Your task to perform on an android device: Go to eBay Image 0: 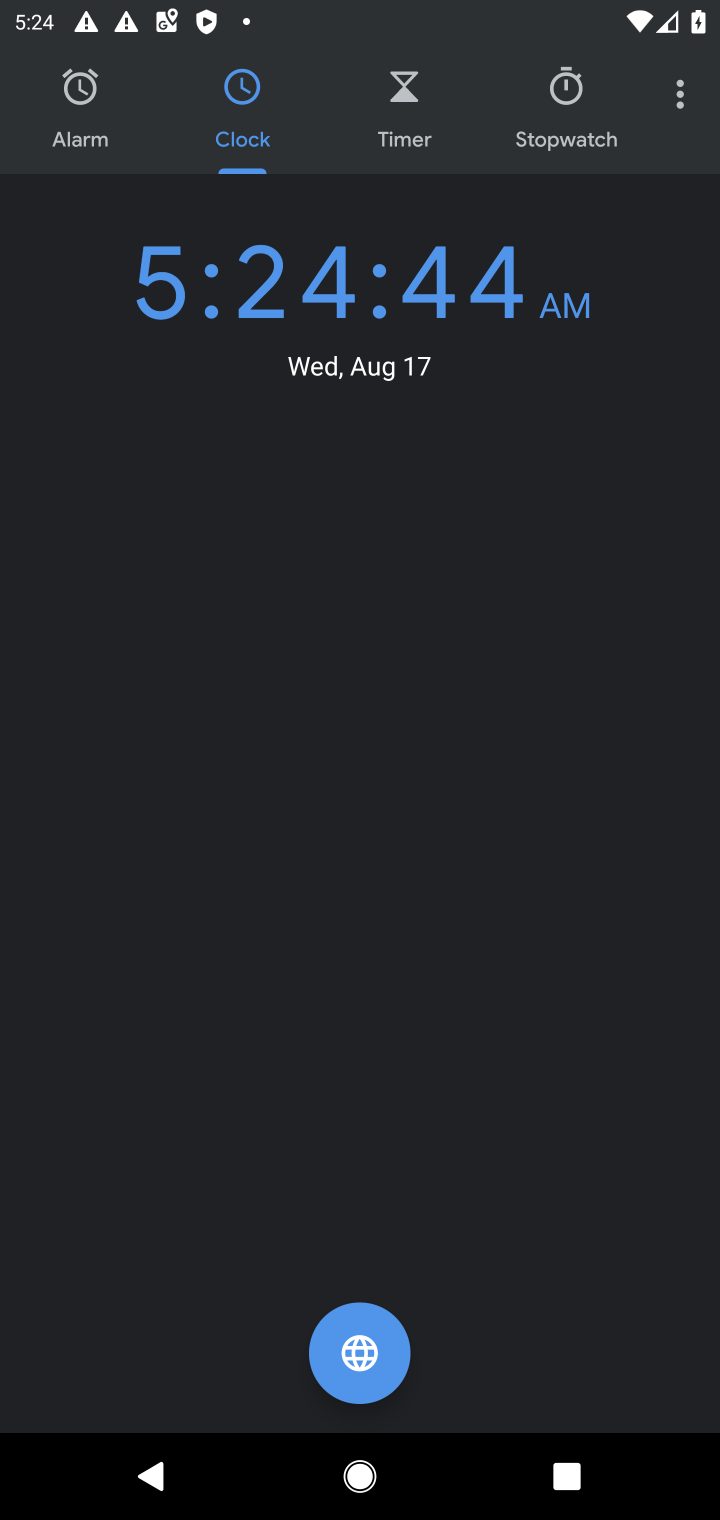
Step 0: press home button
Your task to perform on an android device: Go to eBay Image 1: 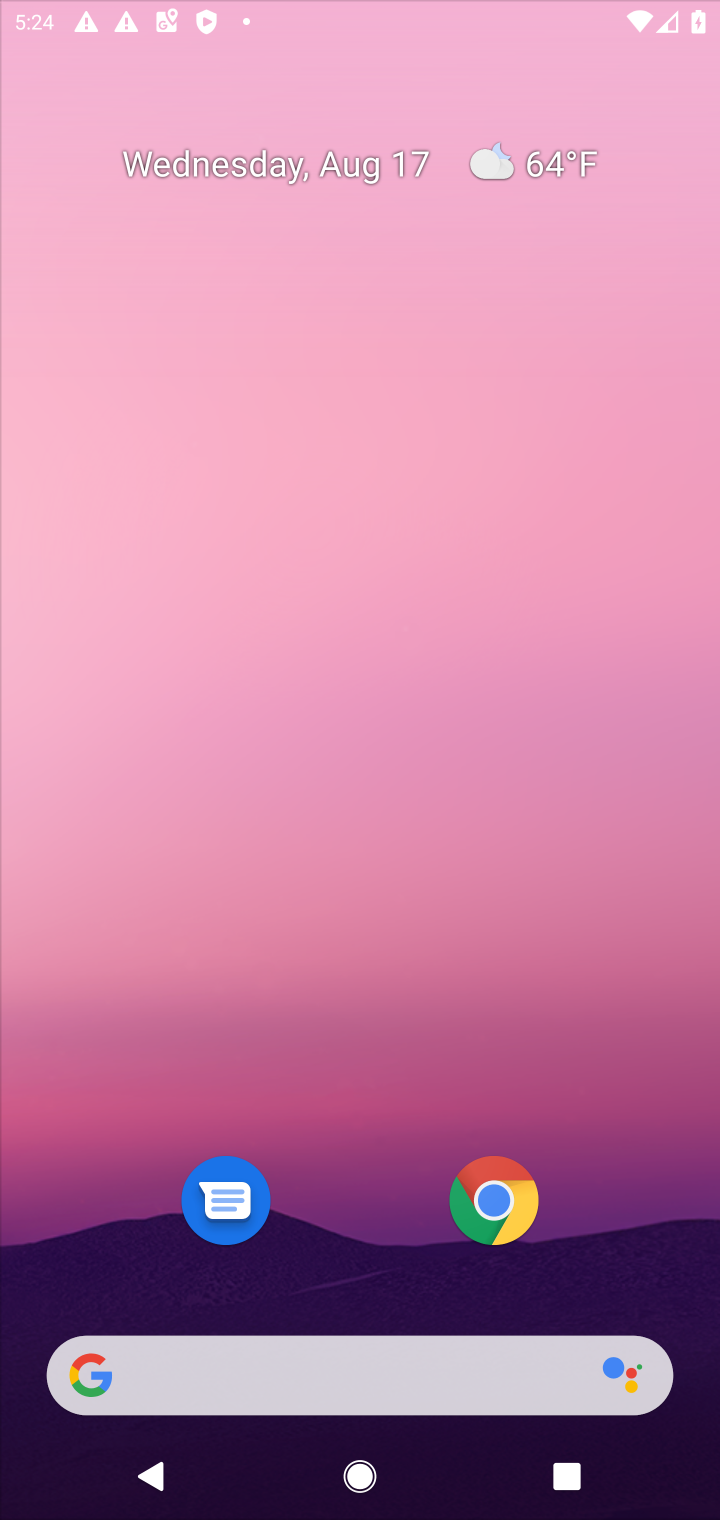
Step 1: press home button
Your task to perform on an android device: Go to eBay Image 2: 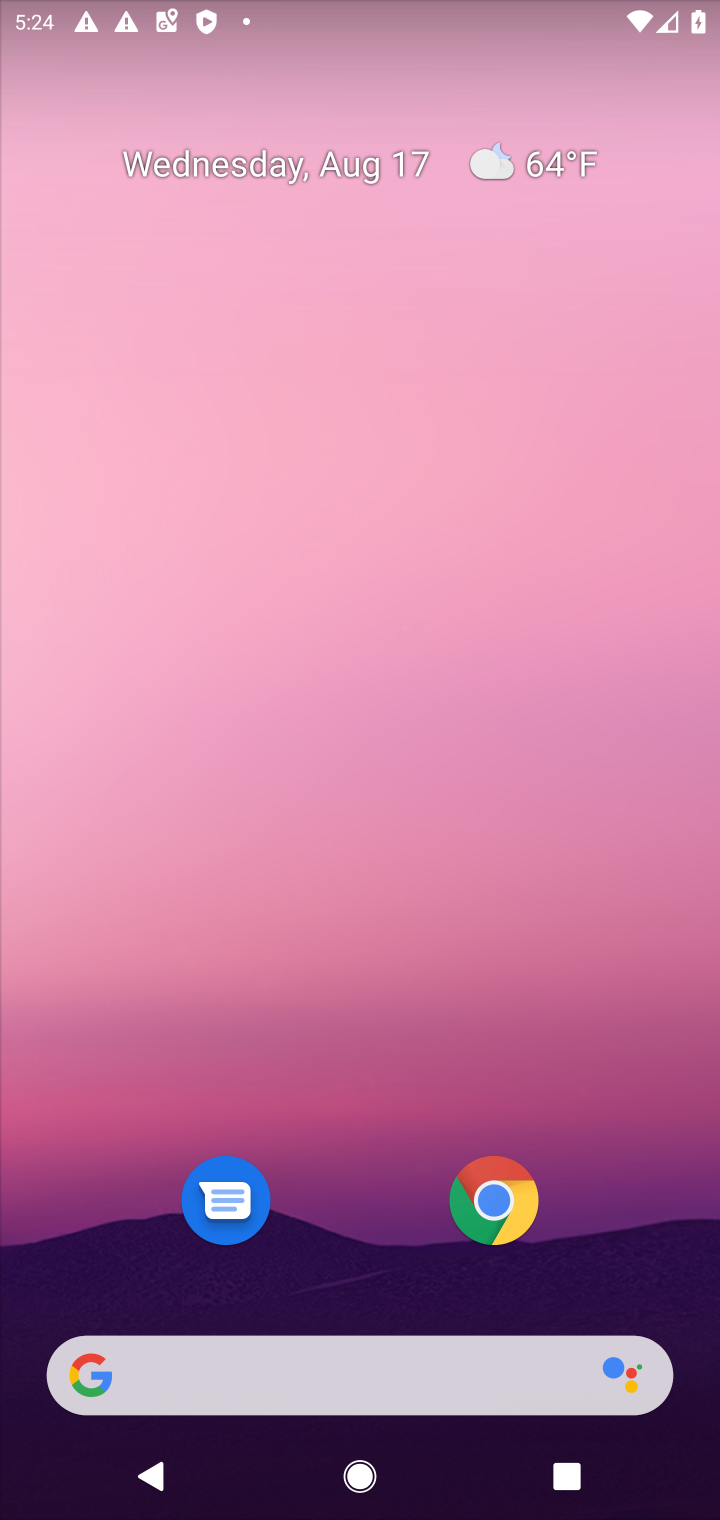
Step 2: click (508, 1215)
Your task to perform on an android device: Go to eBay Image 3: 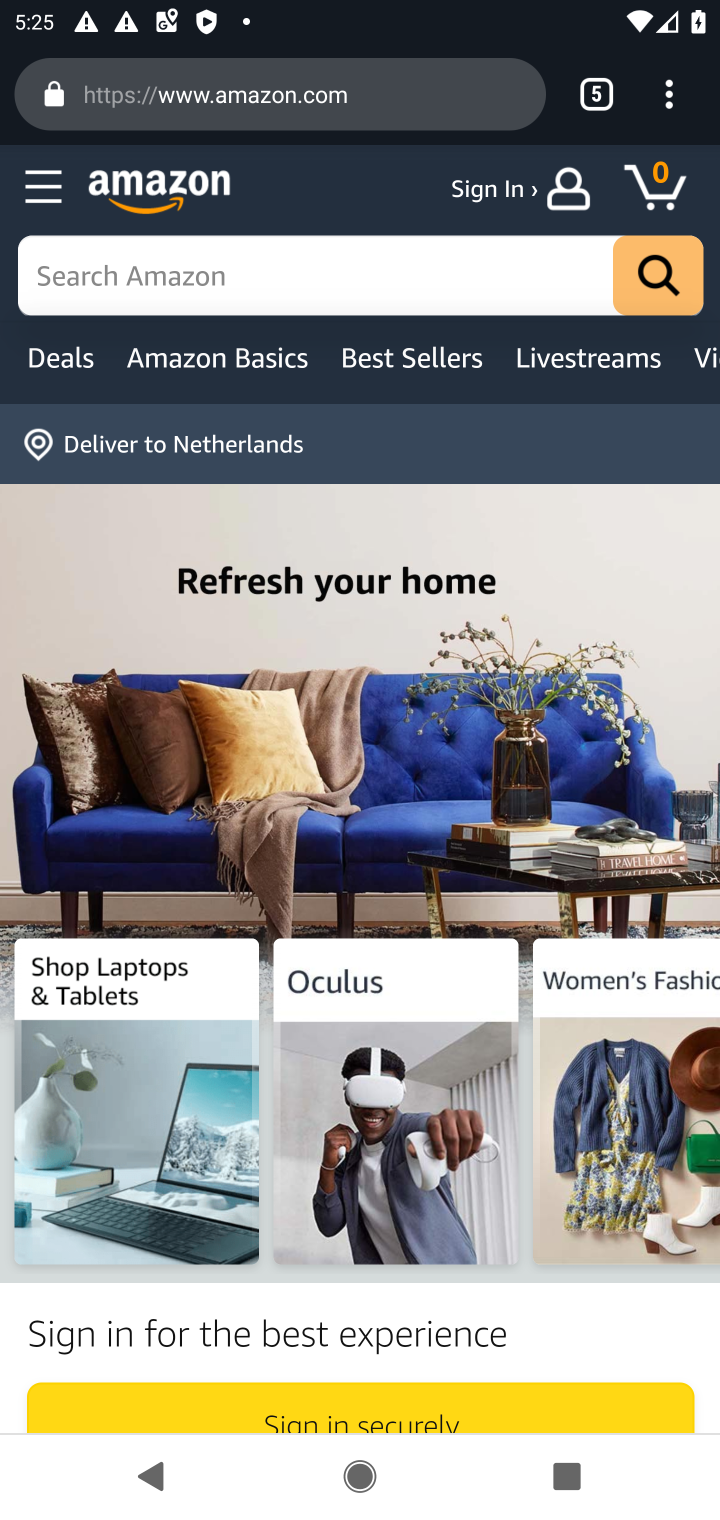
Step 3: click (669, 111)
Your task to perform on an android device: Go to eBay Image 4: 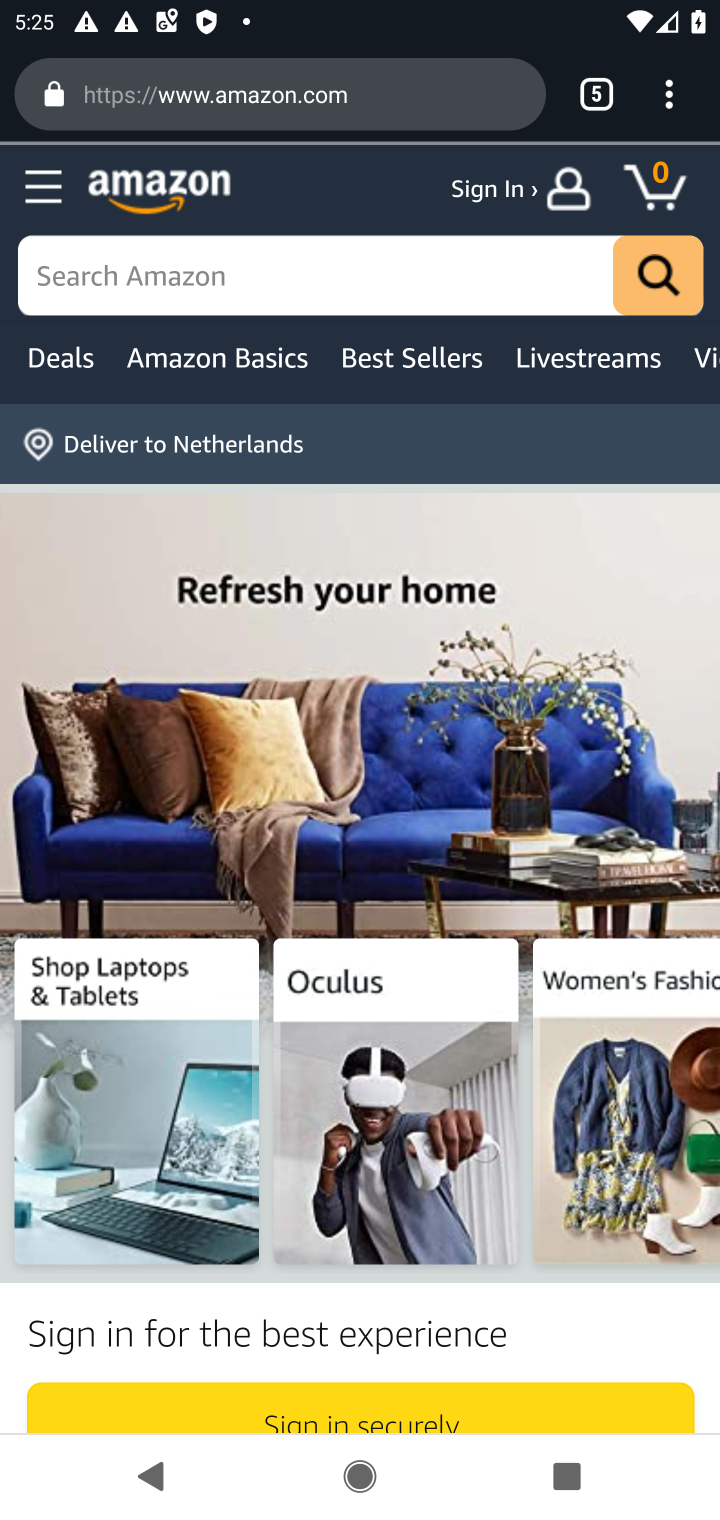
Step 4: drag from (670, 115) to (333, 191)
Your task to perform on an android device: Go to eBay Image 5: 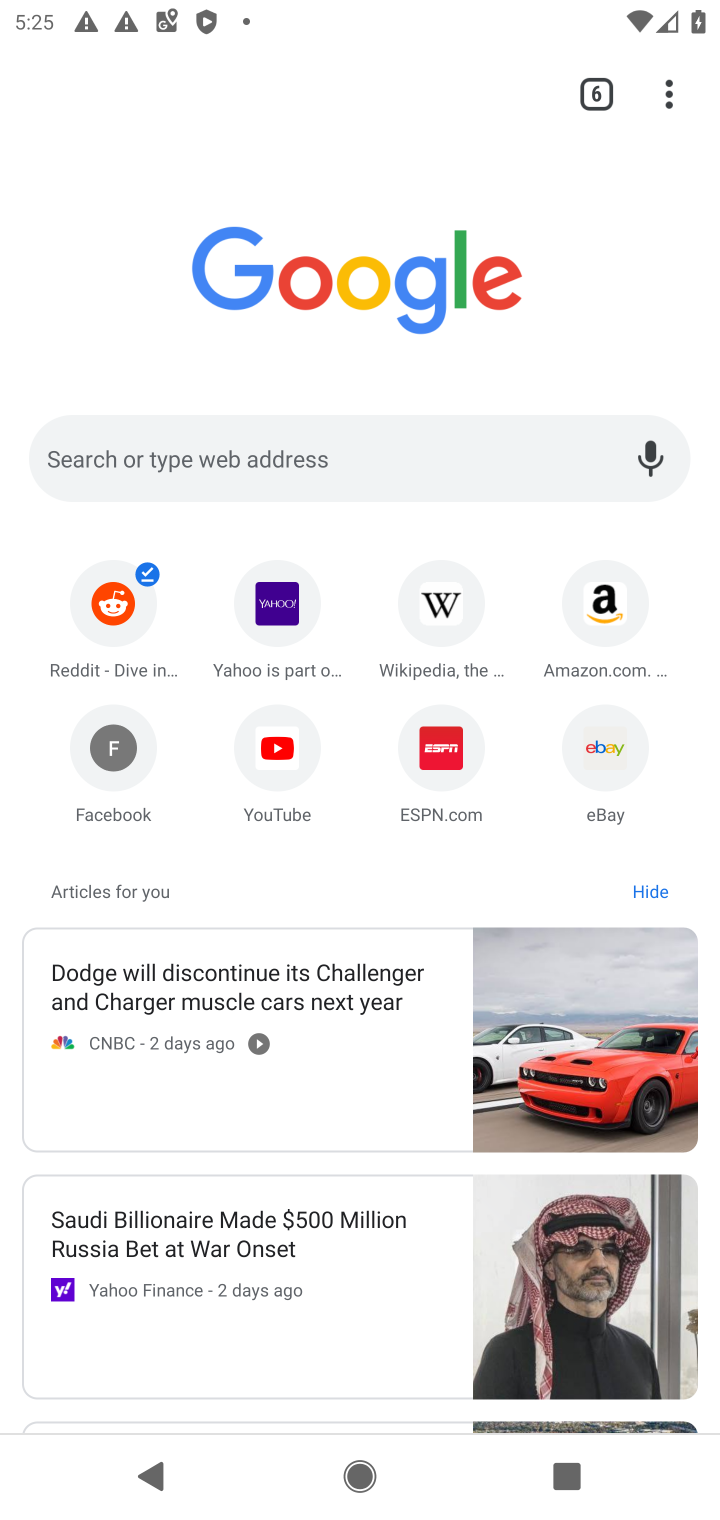
Step 5: click (597, 737)
Your task to perform on an android device: Go to eBay Image 6: 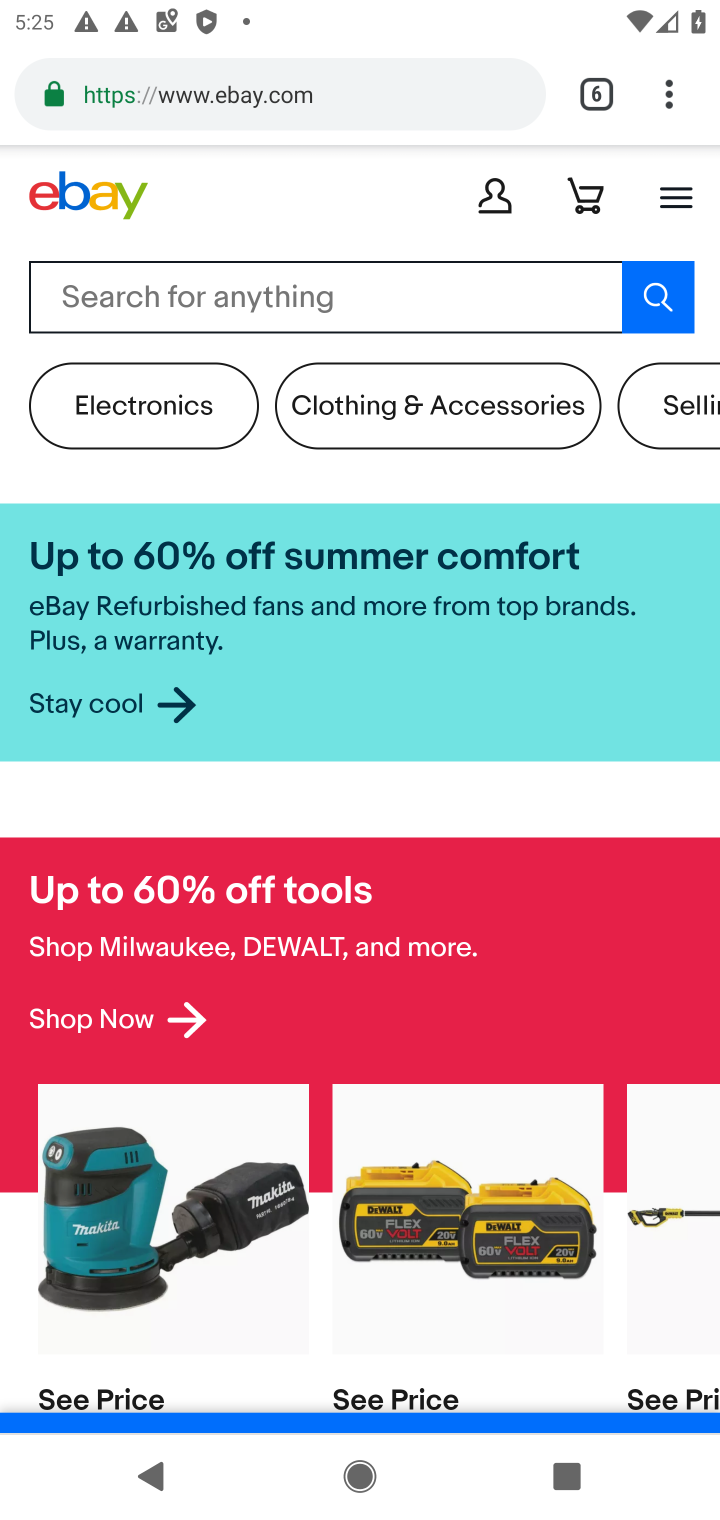
Step 6: task complete